Your task to perform on an android device: empty trash in google photos Image 0: 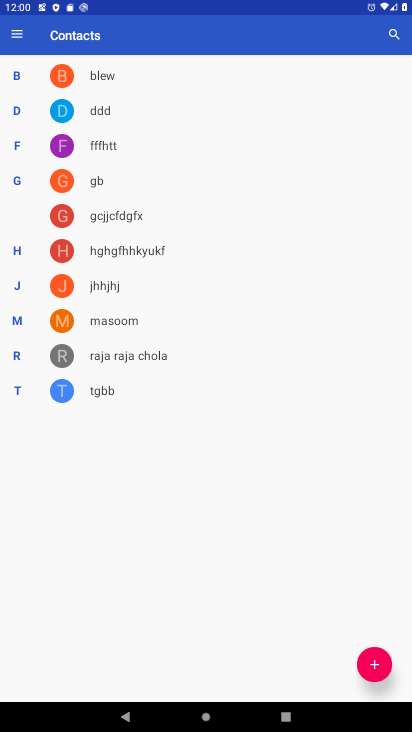
Step 0: press home button
Your task to perform on an android device: empty trash in google photos Image 1: 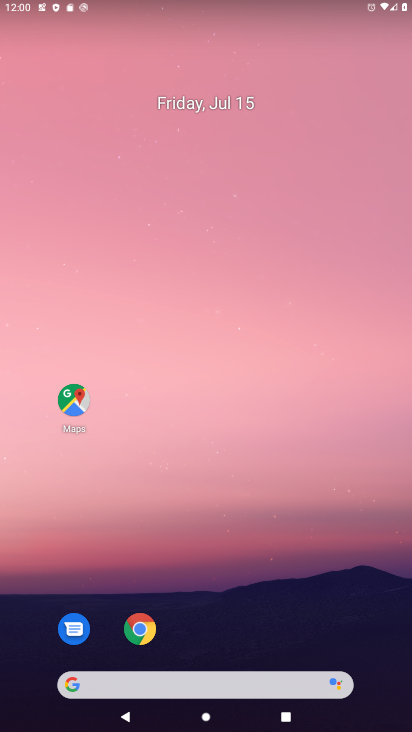
Step 1: drag from (214, 651) to (324, 32)
Your task to perform on an android device: empty trash in google photos Image 2: 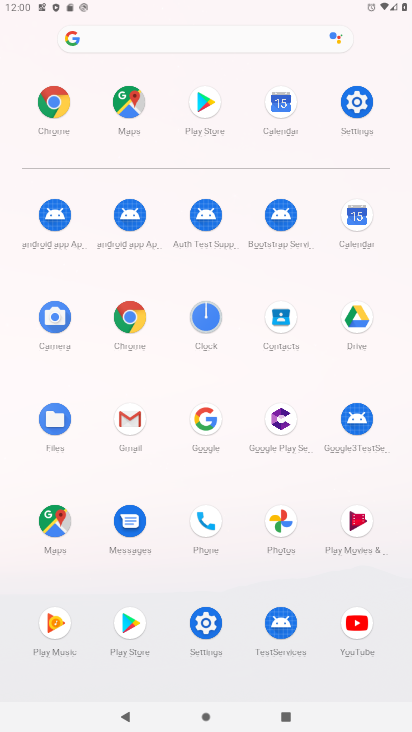
Step 2: click (274, 521)
Your task to perform on an android device: empty trash in google photos Image 3: 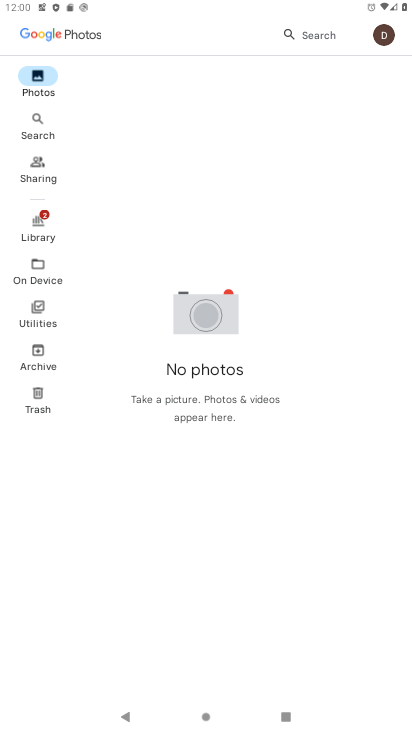
Step 3: click (45, 391)
Your task to perform on an android device: empty trash in google photos Image 4: 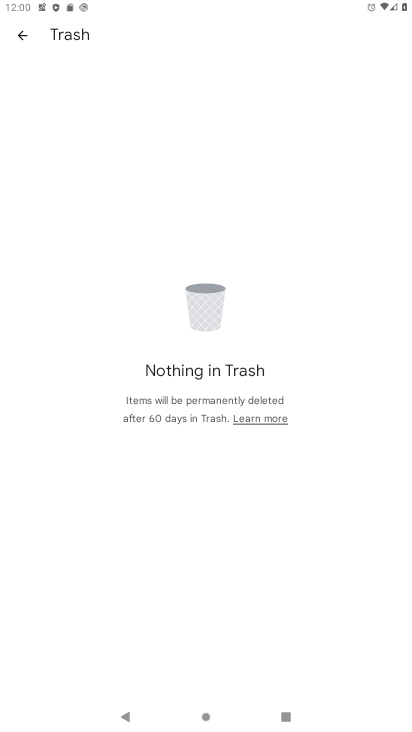
Step 4: task complete